Your task to perform on an android device: Open location settings Image 0: 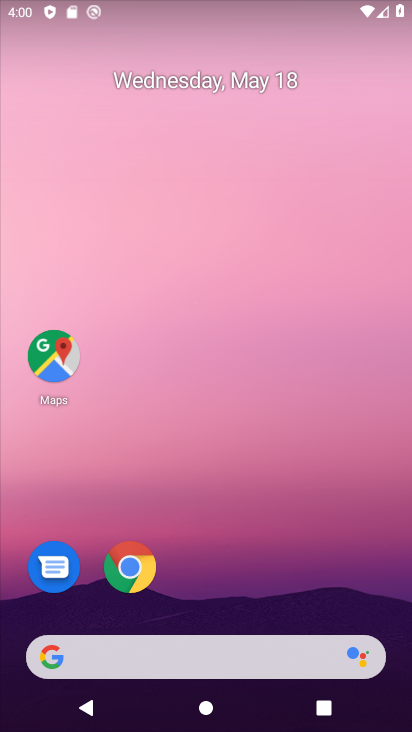
Step 0: drag from (308, 584) to (337, 112)
Your task to perform on an android device: Open location settings Image 1: 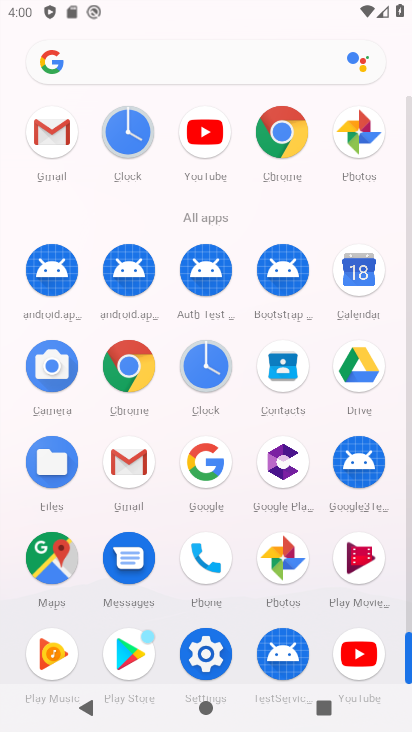
Step 1: click (204, 661)
Your task to perform on an android device: Open location settings Image 2: 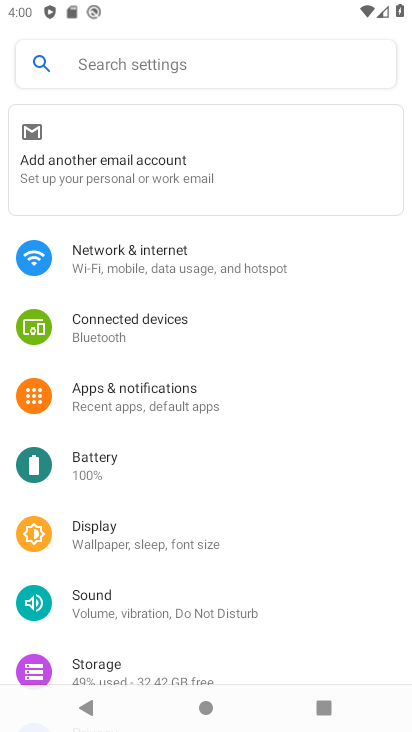
Step 2: drag from (237, 545) to (269, 231)
Your task to perform on an android device: Open location settings Image 3: 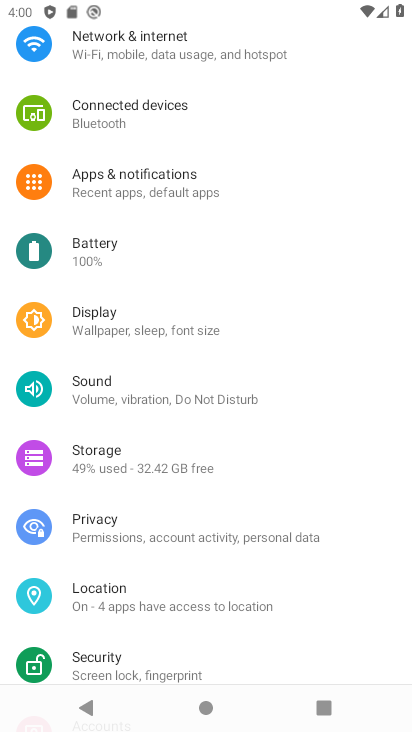
Step 3: click (110, 599)
Your task to perform on an android device: Open location settings Image 4: 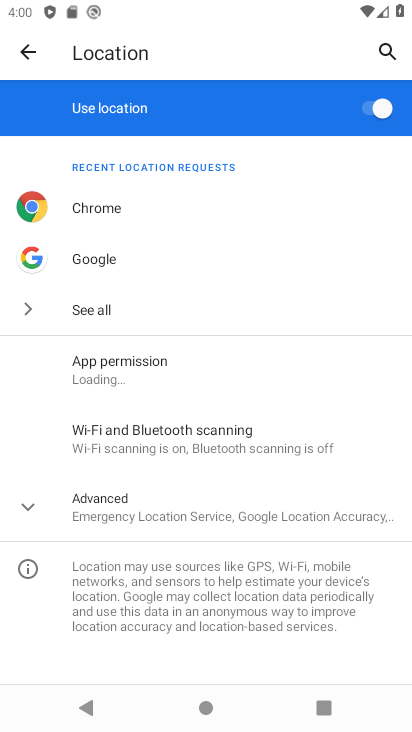
Step 4: task complete